Your task to perform on an android device: Go to CNN.com Image 0: 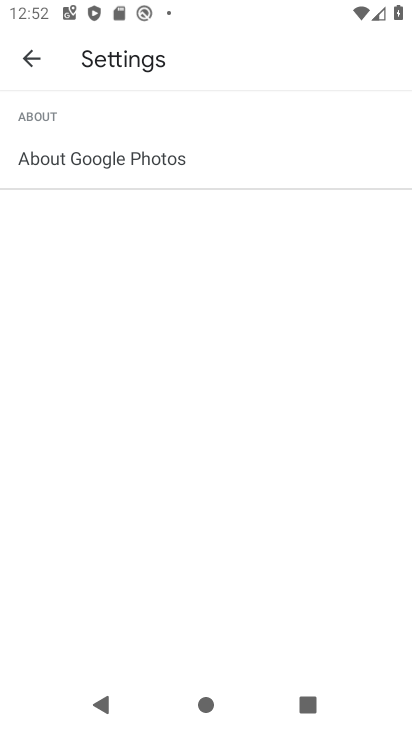
Step 0: press home button
Your task to perform on an android device: Go to CNN.com Image 1: 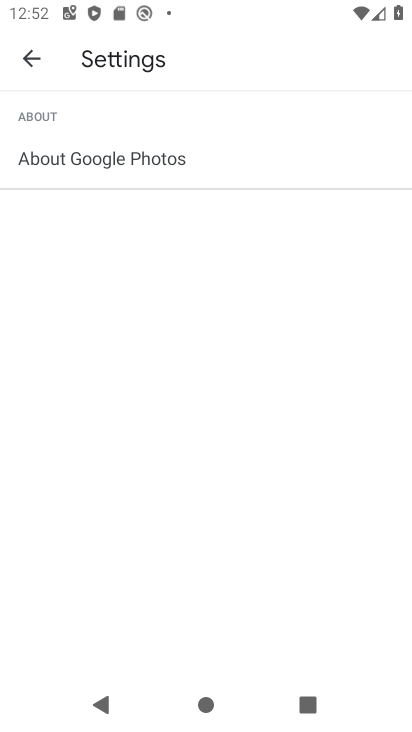
Step 1: press home button
Your task to perform on an android device: Go to CNN.com Image 2: 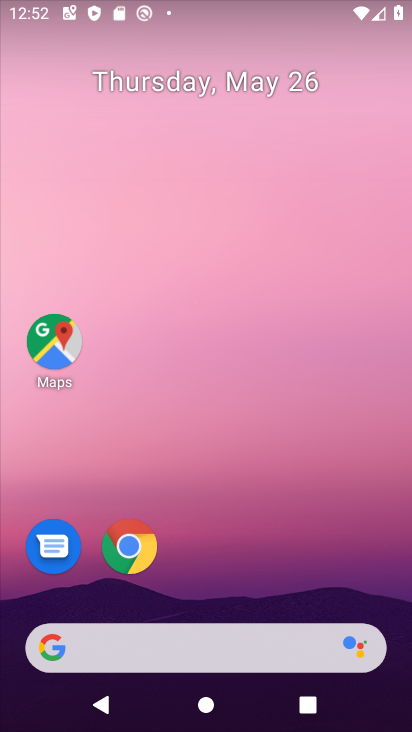
Step 2: click (139, 574)
Your task to perform on an android device: Go to CNN.com Image 3: 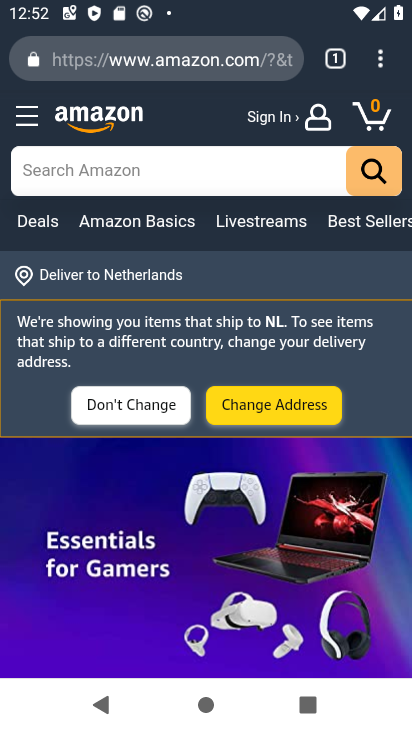
Step 3: click (167, 62)
Your task to perform on an android device: Go to CNN.com Image 4: 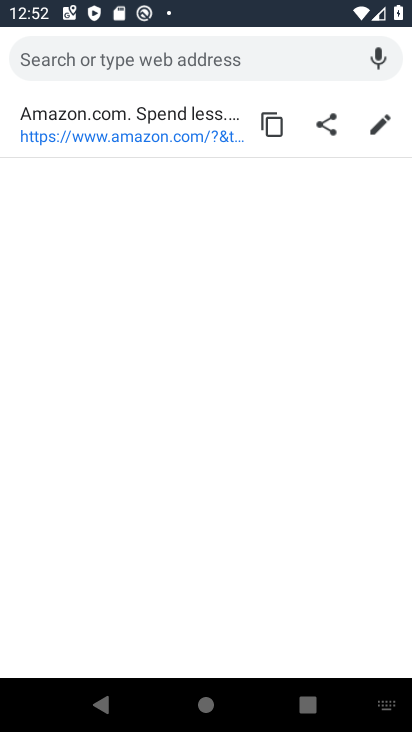
Step 4: type " CNN.com"
Your task to perform on an android device: Go to CNN.com Image 5: 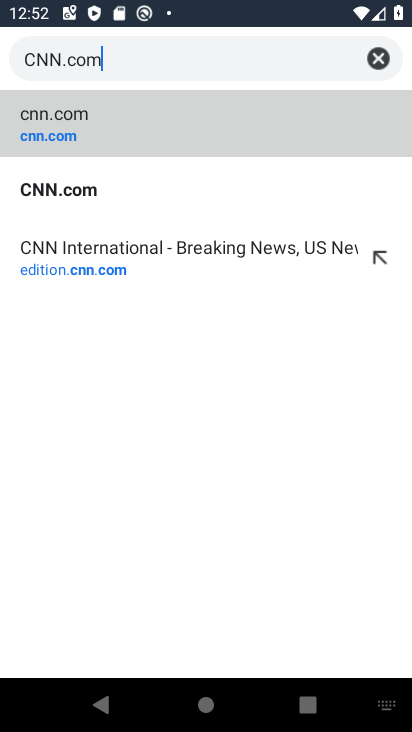
Step 5: click (172, 113)
Your task to perform on an android device: Go to CNN.com Image 6: 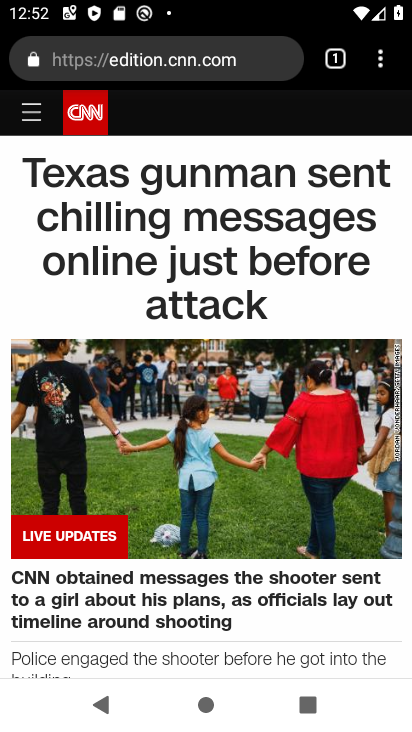
Step 6: task complete